Your task to perform on an android device: turn off wifi Image 0: 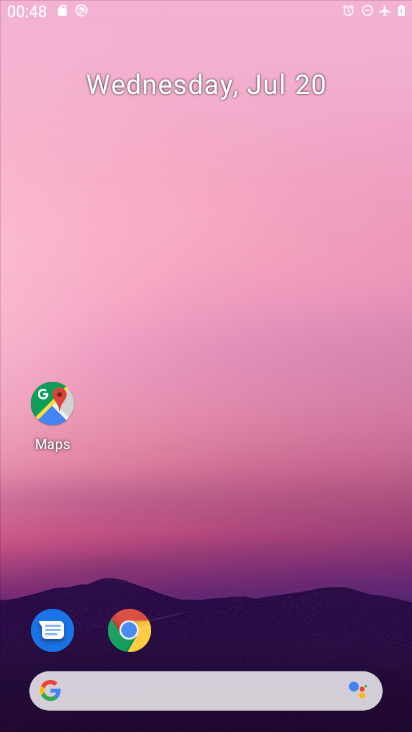
Step 0: click (130, 631)
Your task to perform on an android device: turn off wifi Image 1: 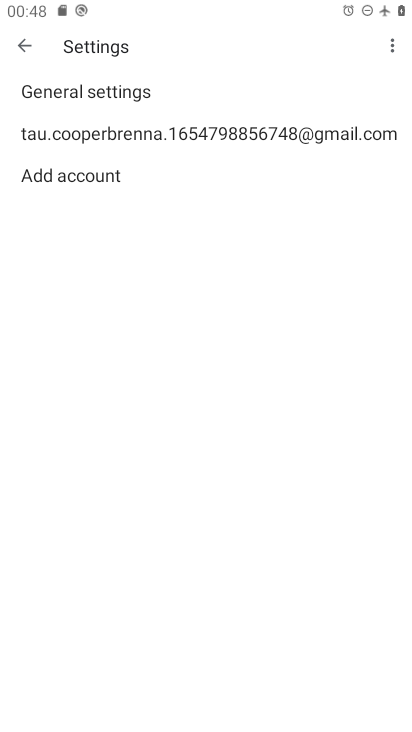
Step 1: press home button
Your task to perform on an android device: turn off wifi Image 2: 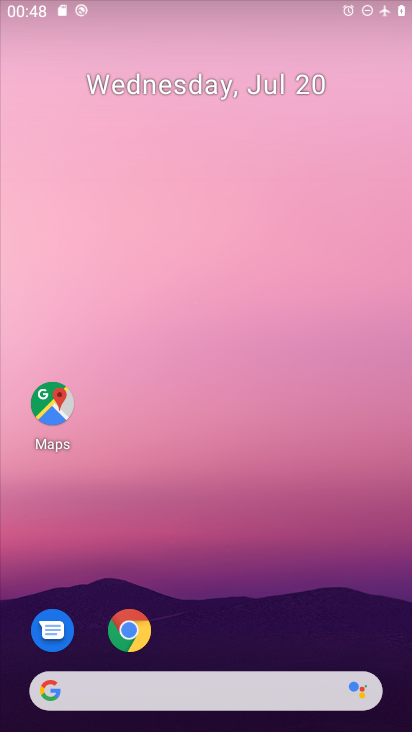
Step 2: drag from (196, 599) to (242, 90)
Your task to perform on an android device: turn off wifi Image 3: 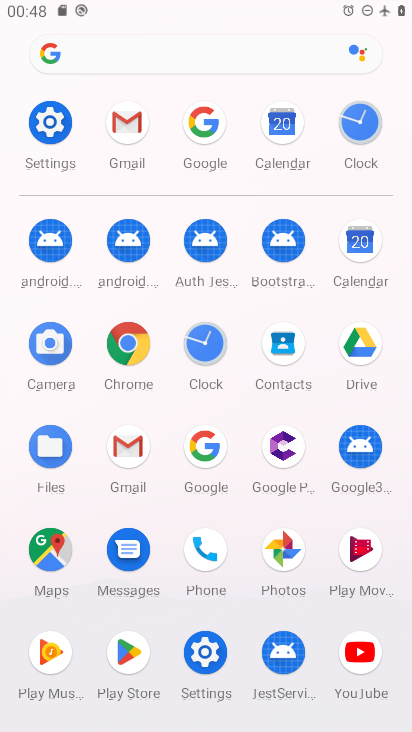
Step 3: click (52, 129)
Your task to perform on an android device: turn off wifi Image 4: 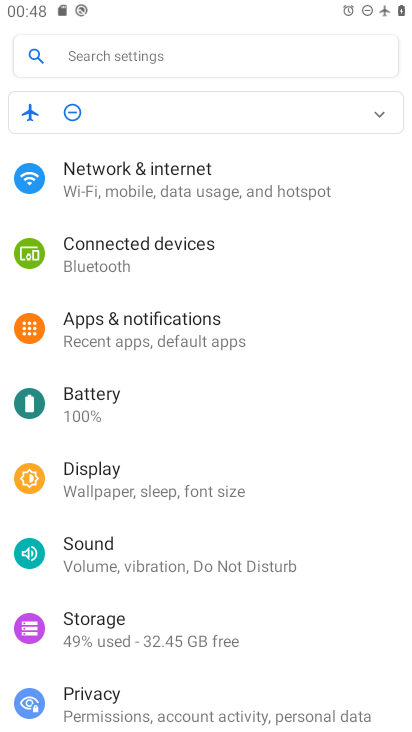
Step 4: click (99, 159)
Your task to perform on an android device: turn off wifi Image 5: 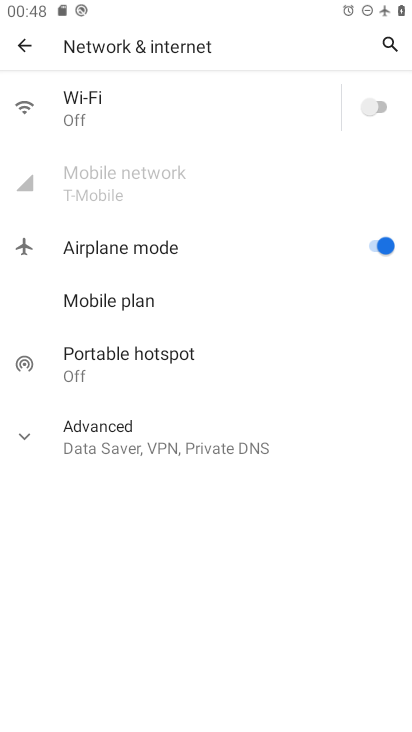
Step 5: task complete